Your task to perform on an android device: turn on bluetooth scan Image 0: 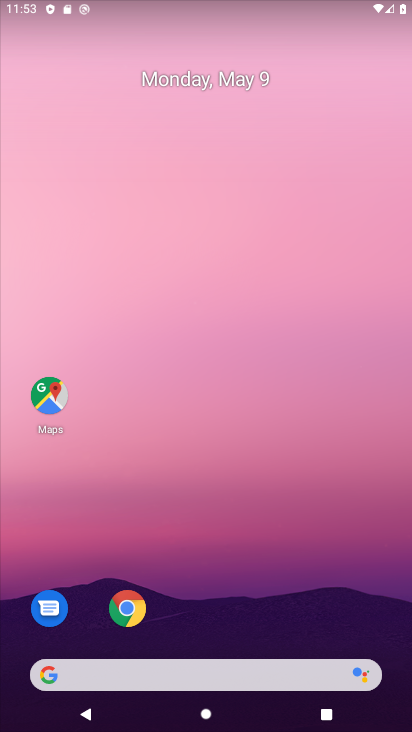
Step 0: drag from (313, 595) to (230, 1)
Your task to perform on an android device: turn on bluetooth scan Image 1: 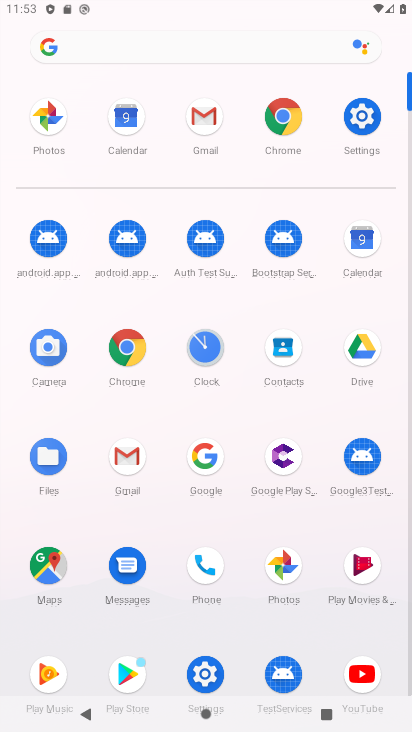
Step 1: drag from (12, 570) to (4, 231)
Your task to perform on an android device: turn on bluetooth scan Image 2: 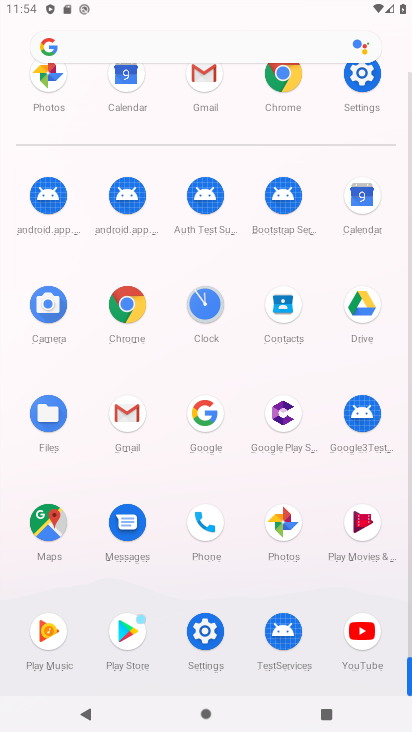
Step 2: click (204, 630)
Your task to perform on an android device: turn on bluetooth scan Image 3: 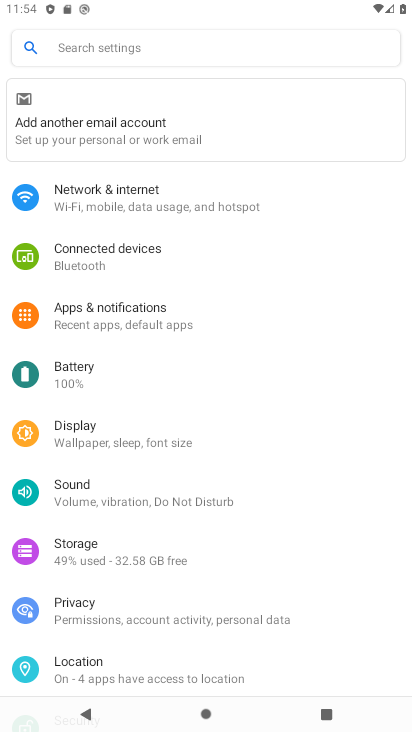
Step 3: click (110, 660)
Your task to perform on an android device: turn on bluetooth scan Image 4: 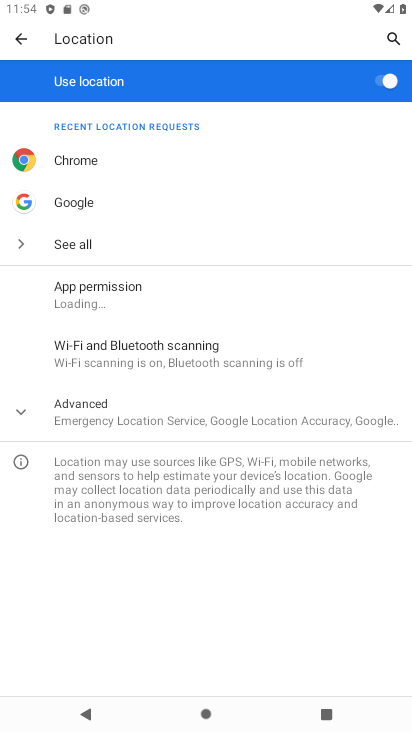
Step 4: click (134, 352)
Your task to perform on an android device: turn on bluetooth scan Image 5: 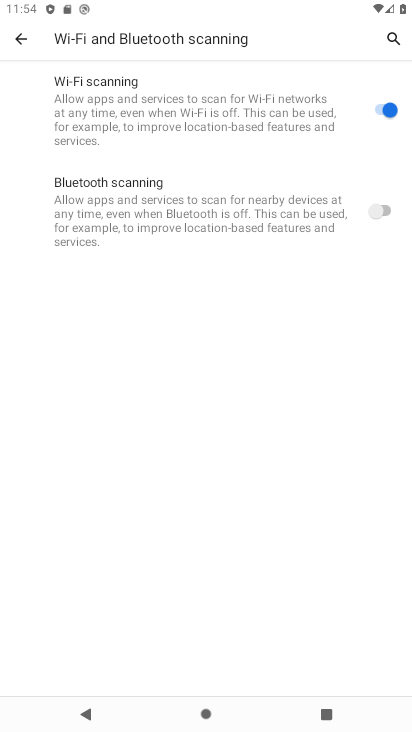
Step 5: click (374, 204)
Your task to perform on an android device: turn on bluetooth scan Image 6: 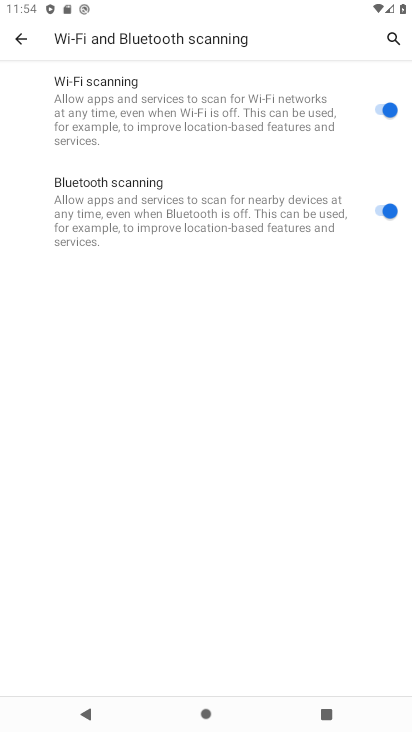
Step 6: task complete